Your task to perform on an android device: Search for "razer kraken" on target, select the first entry, and add it to the cart. Image 0: 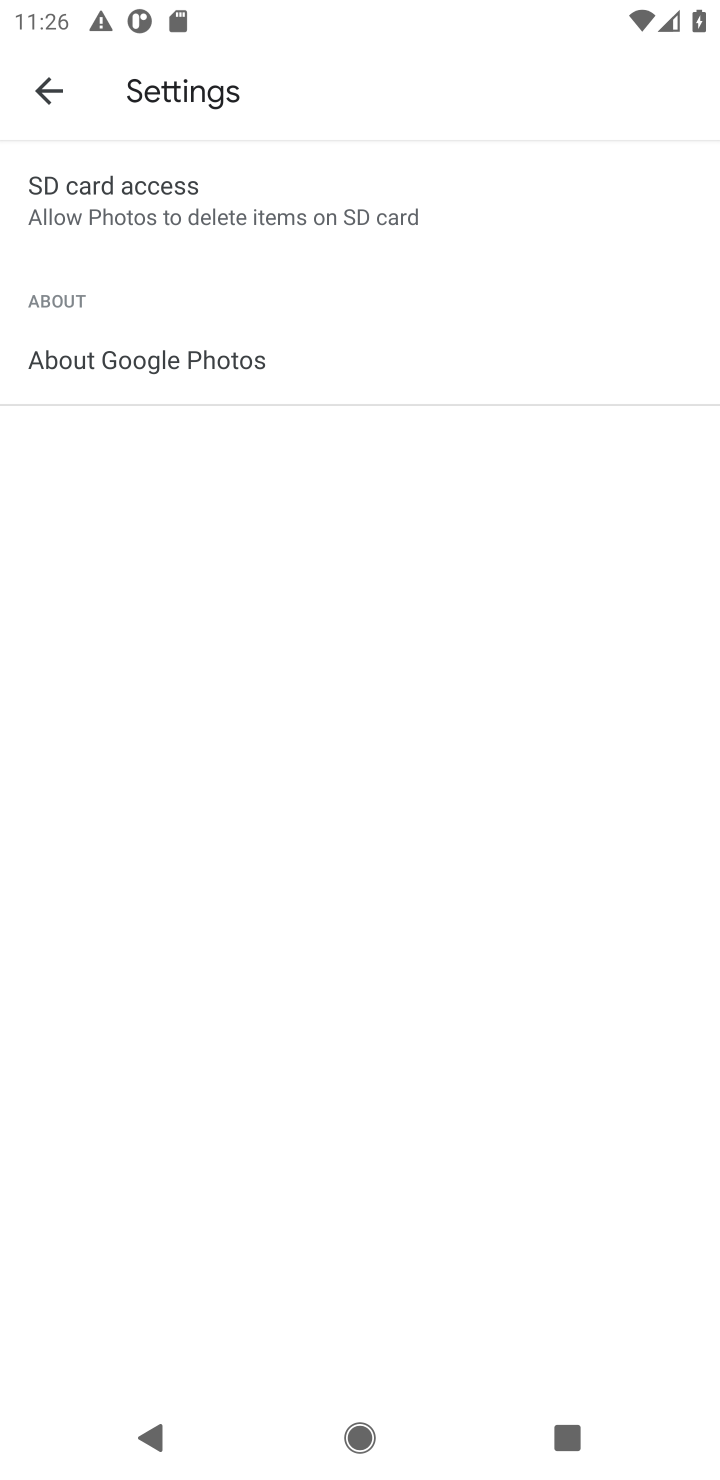
Step 0: press home button
Your task to perform on an android device: Search for "razer kraken" on target, select the first entry, and add it to the cart. Image 1: 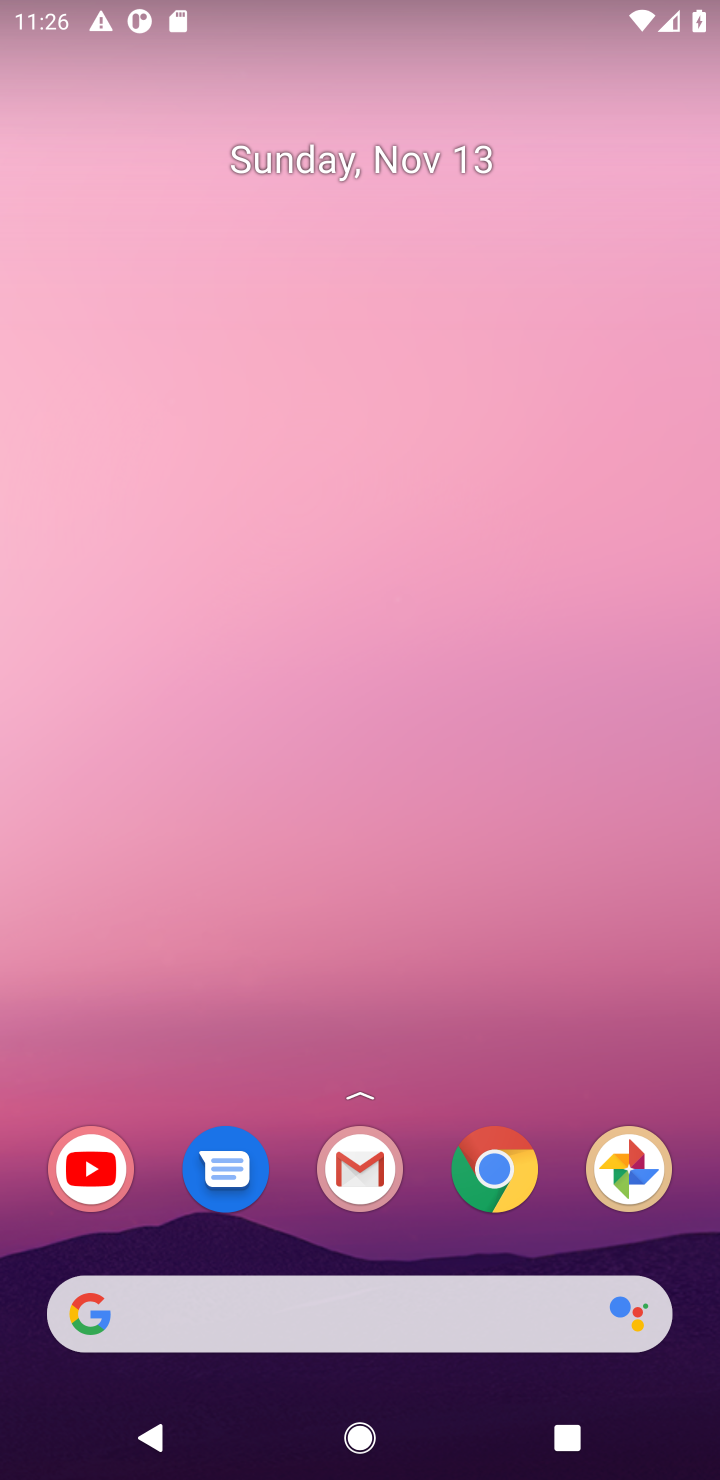
Step 1: drag from (351, 907) to (366, 100)
Your task to perform on an android device: Search for "razer kraken" on target, select the first entry, and add it to the cart. Image 2: 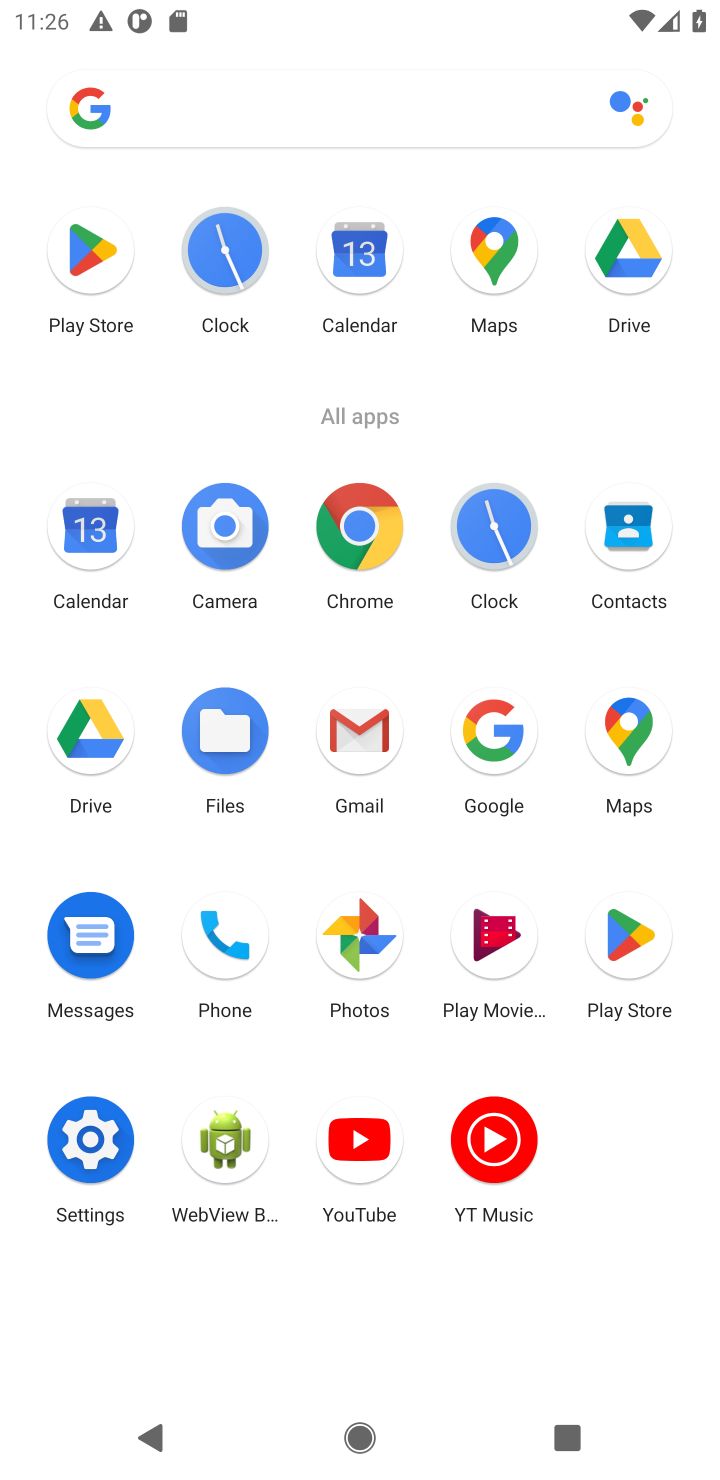
Step 2: click (358, 527)
Your task to perform on an android device: Search for "razer kraken" on target, select the first entry, and add it to the cart. Image 3: 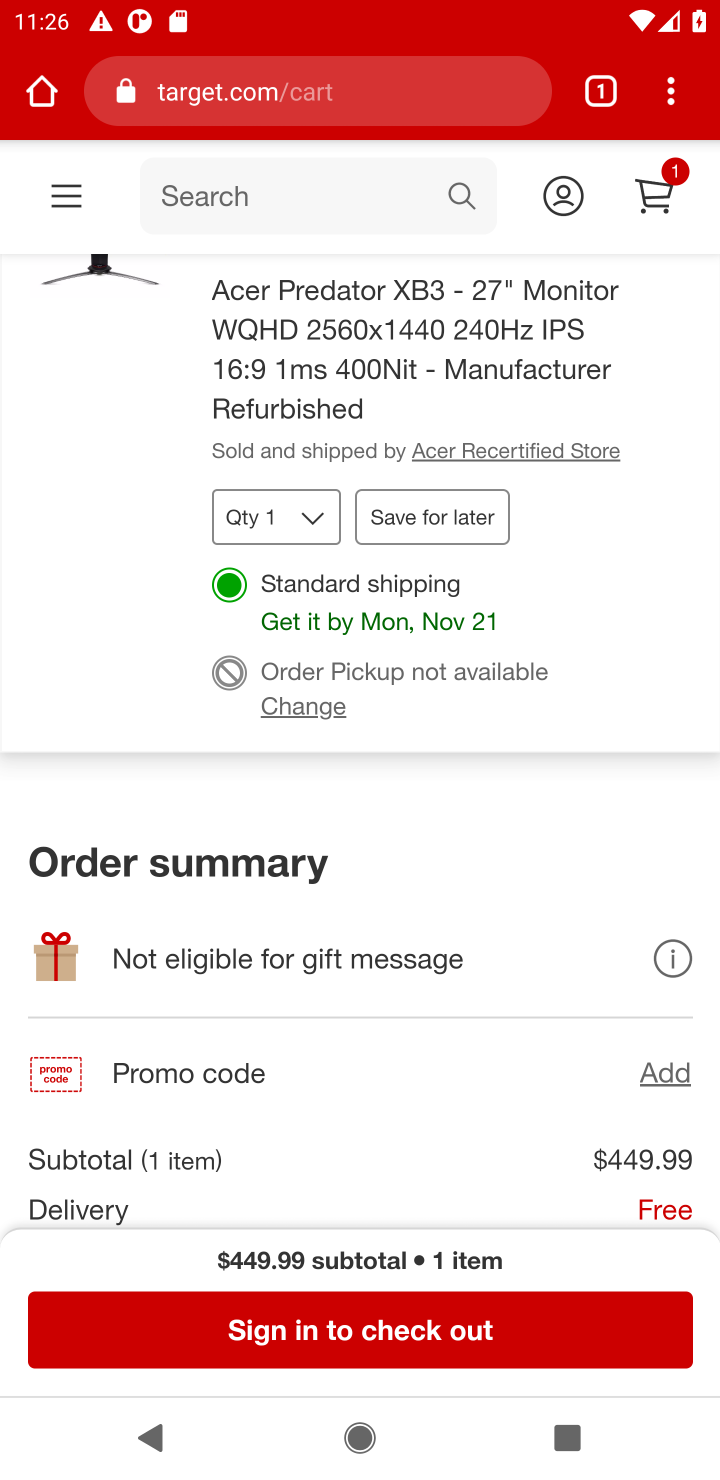
Step 3: click (372, 94)
Your task to perform on an android device: Search for "razer kraken" on target, select the first entry, and add it to the cart. Image 4: 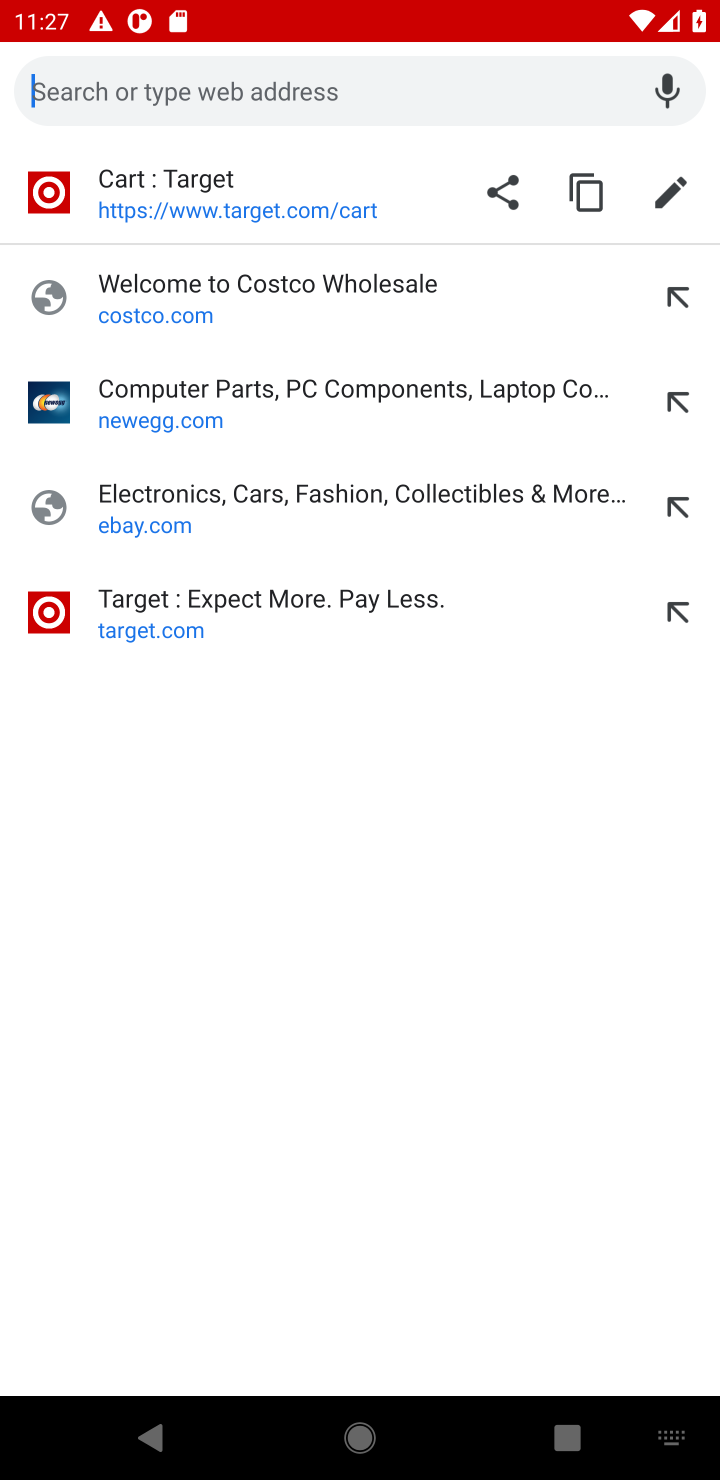
Step 4: type "target.com"
Your task to perform on an android device: Search for "razer kraken" on target, select the first entry, and add it to the cart. Image 5: 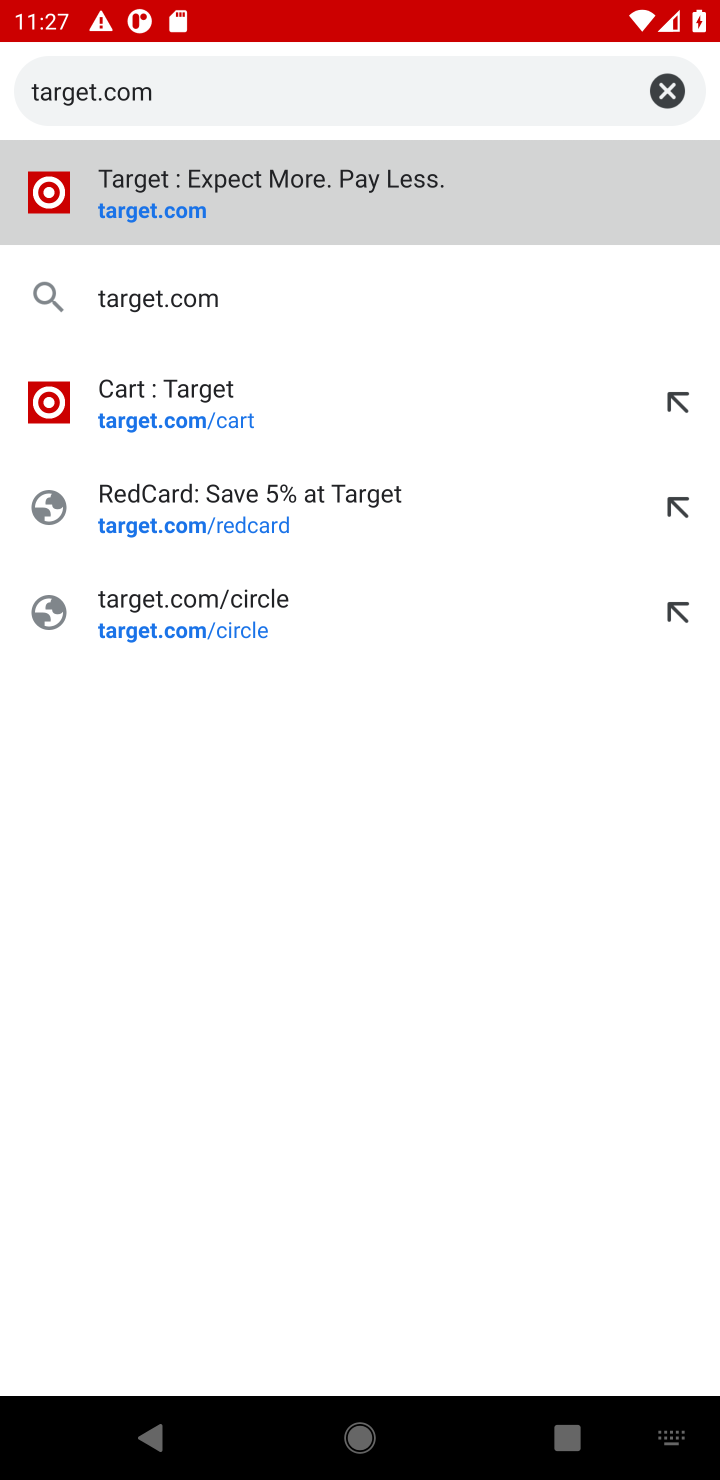
Step 5: press enter
Your task to perform on an android device: Search for "razer kraken" on target, select the first entry, and add it to the cart. Image 6: 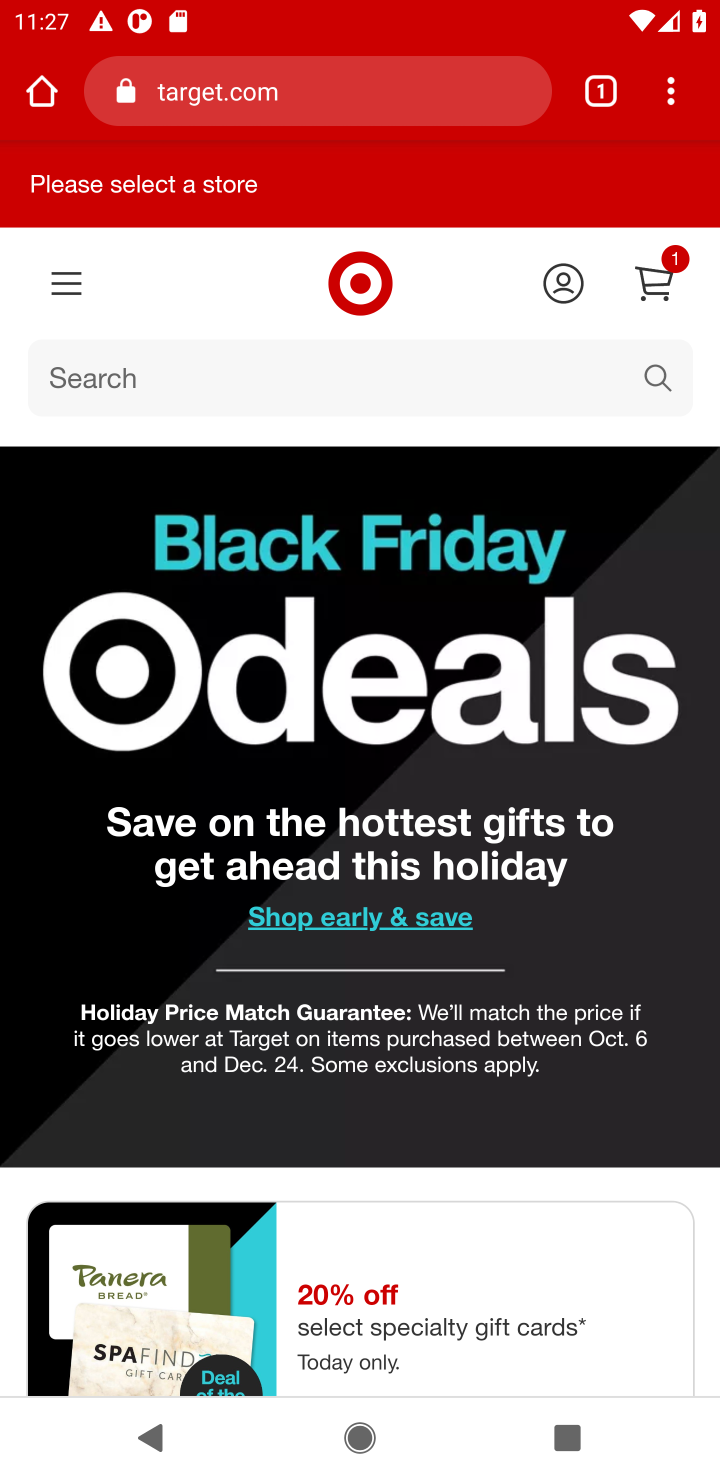
Step 6: click (233, 366)
Your task to perform on an android device: Search for "razer kraken" on target, select the first entry, and add it to the cart. Image 7: 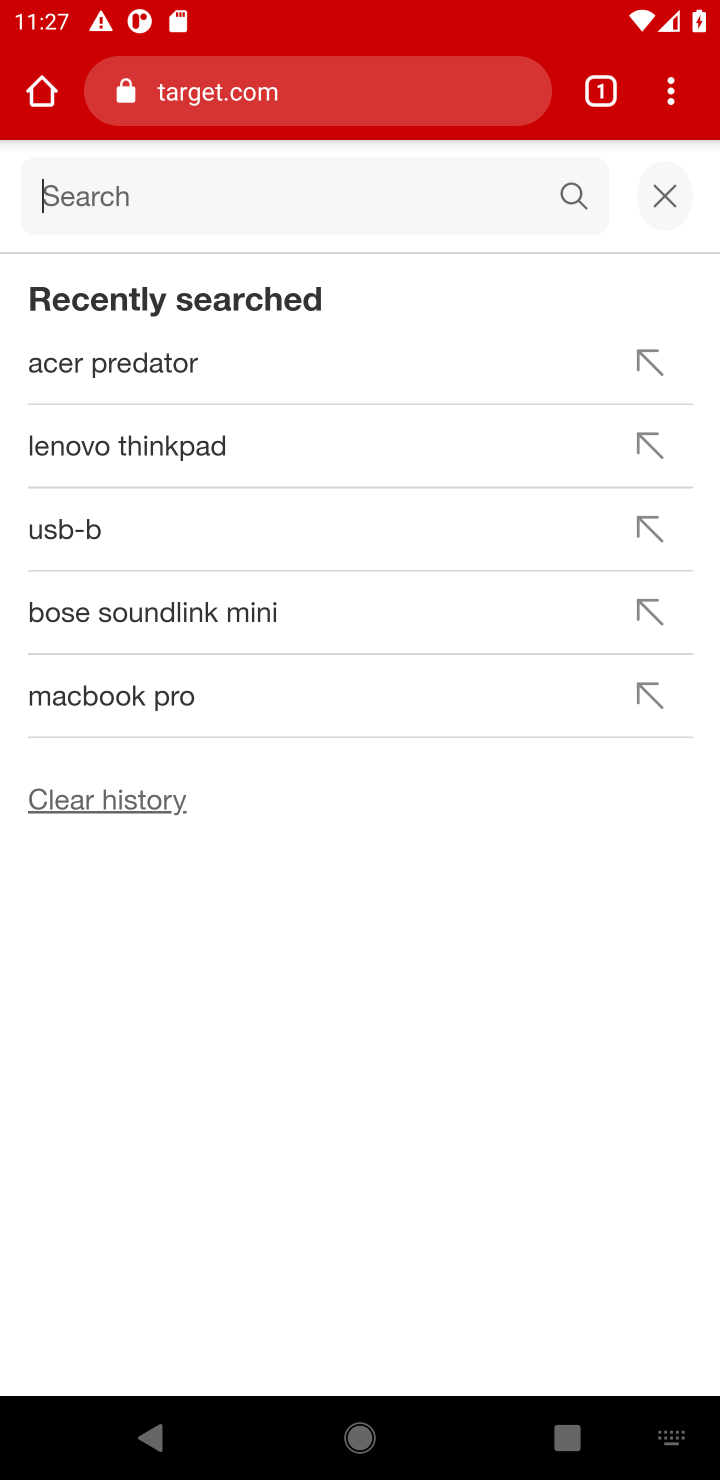
Step 7: type "razer kraken"
Your task to perform on an android device: Search for "razer kraken" on target, select the first entry, and add it to the cart. Image 8: 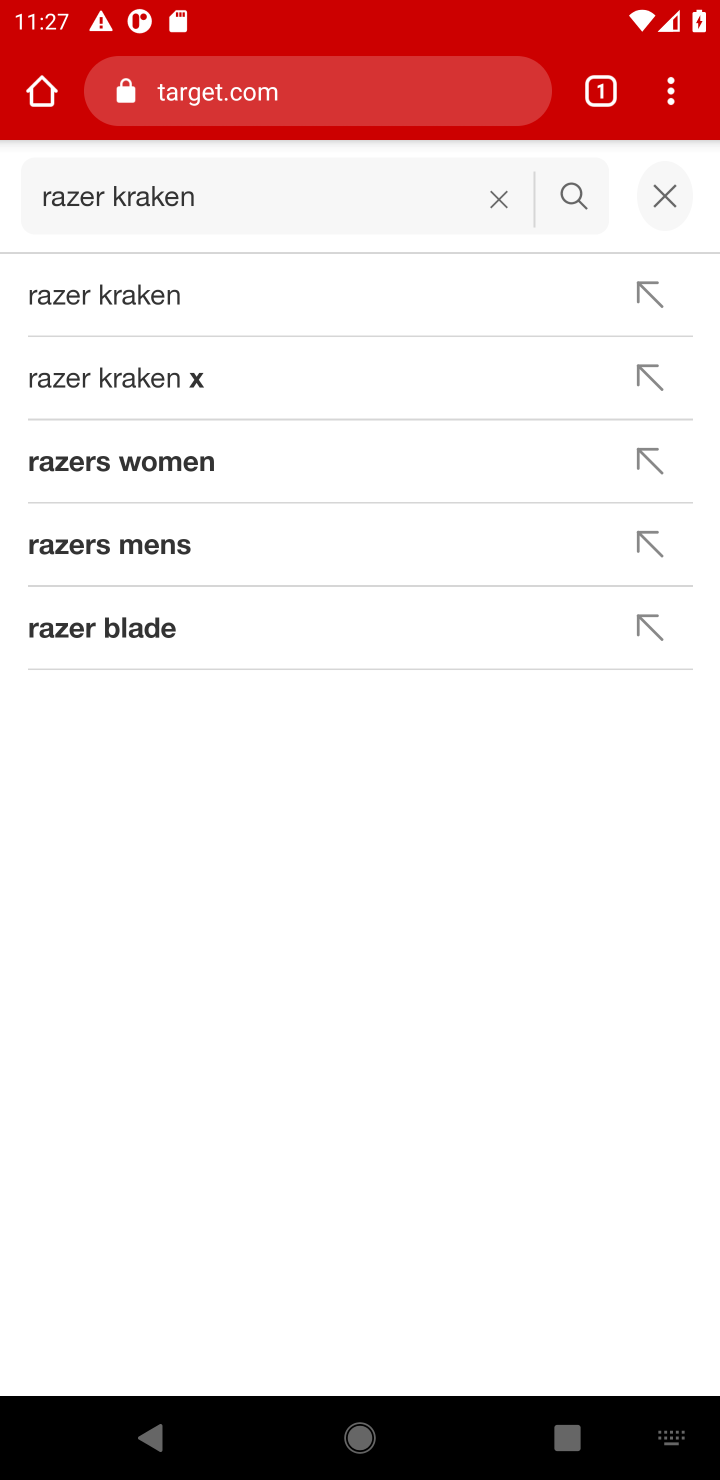
Step 8: press enter
Your task to perform on an android device: Search for "razer kraken" on target, select the first entry, and add it to the cart. Image 9: 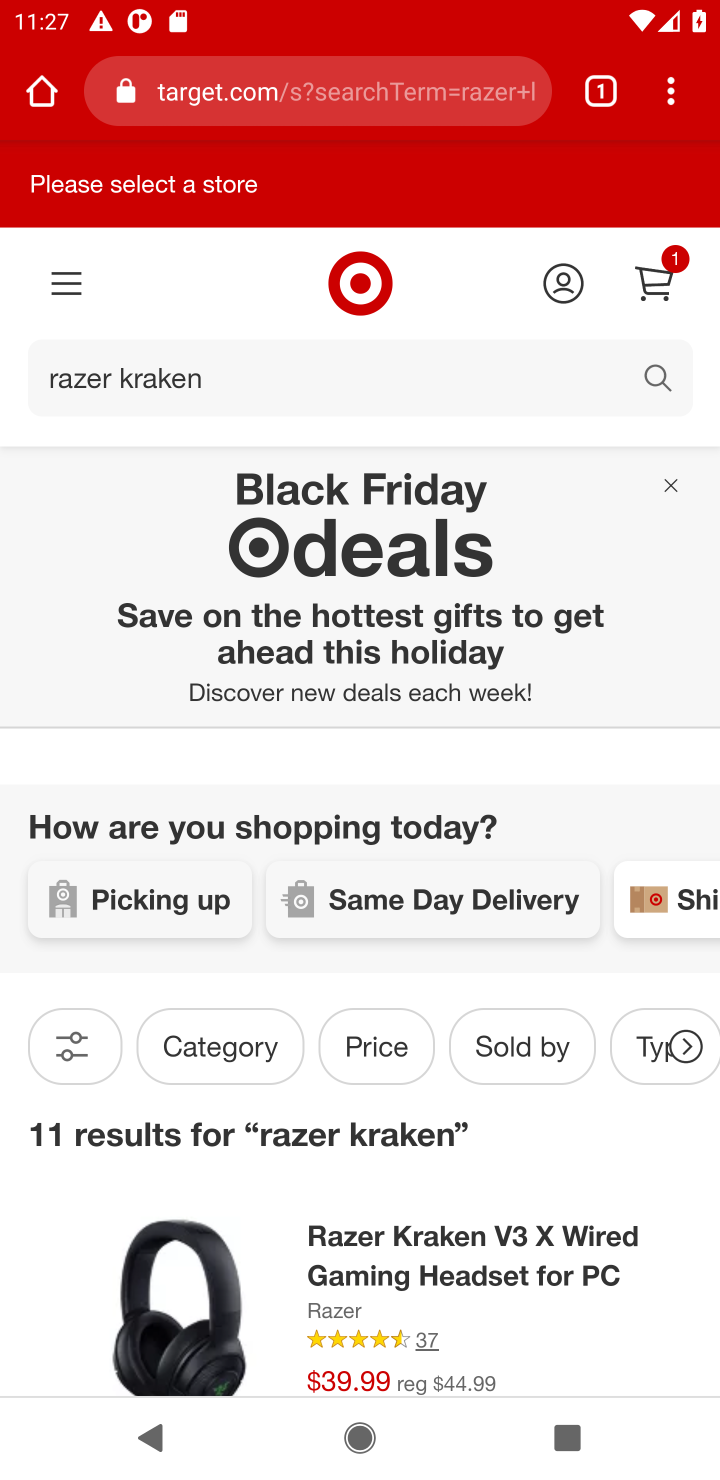
Step 9: drag from (536, 1341) to (467, 757)
Your task to perform on an android device: Search for "razer kraken" on target, select the first entry, and add it to the cart. Image 10: 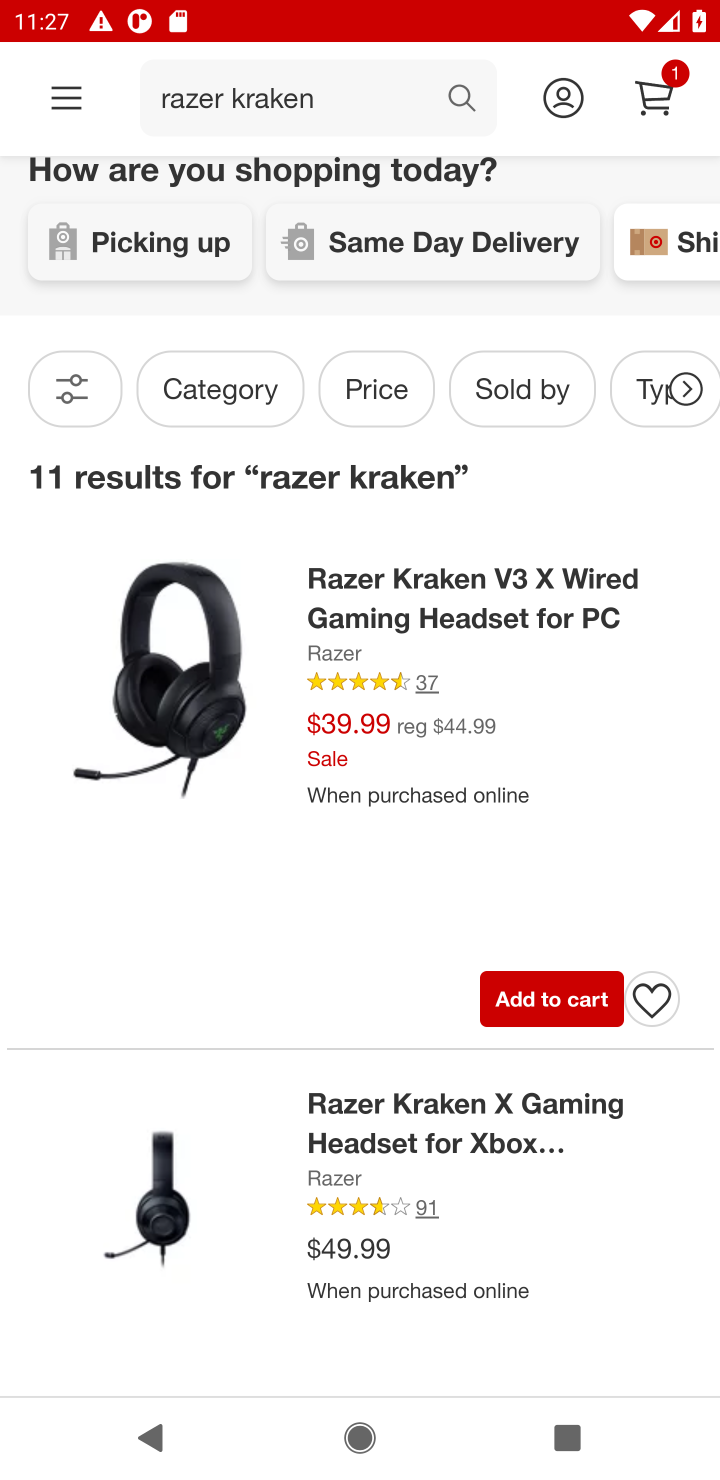
Step 10: click (526, 997)
Your task to perform on an android device: Search for "razer kraken" on target, select the first entry, and add it to the cart. Image 11: 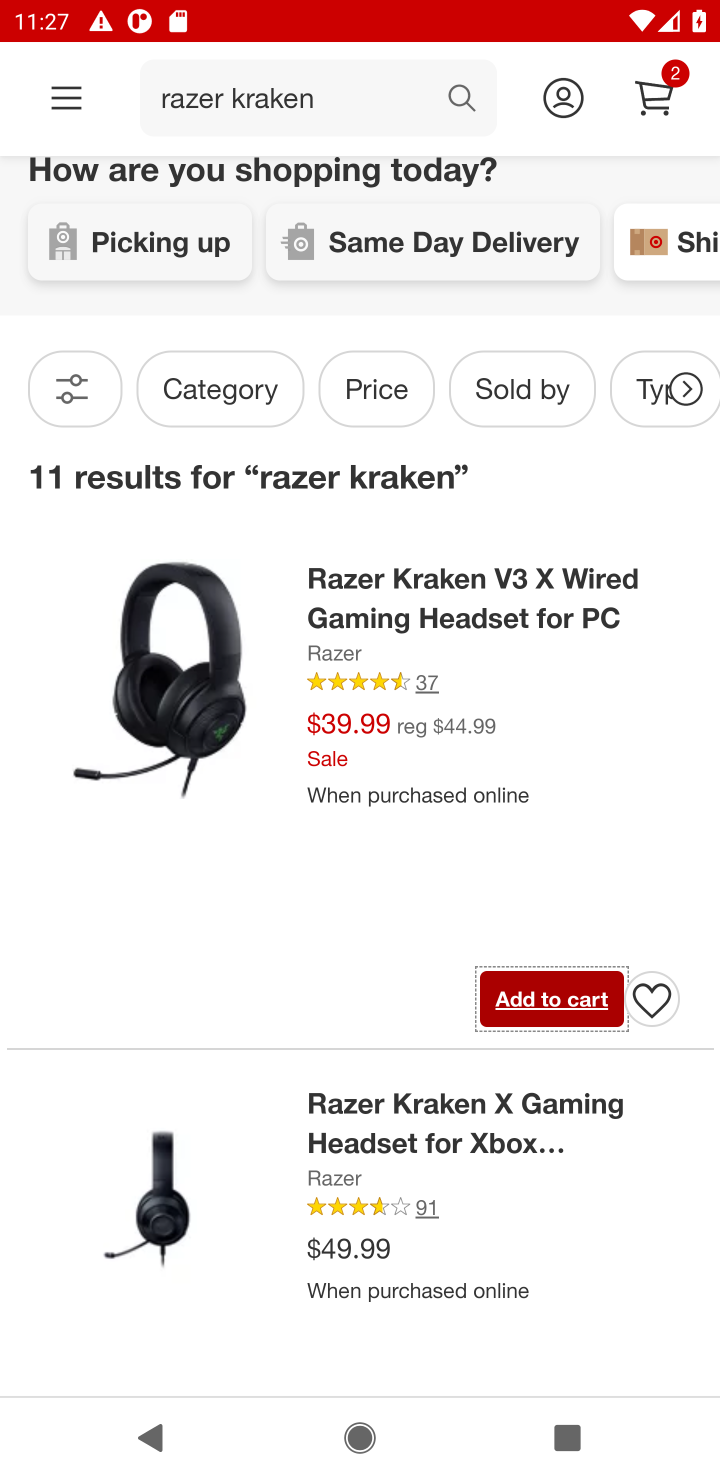
Step 11: click (532, 1008)
Your task to perform on an android device: Search for "razer kraken" on target, select the first entry, and add it to the cart. Image 12: 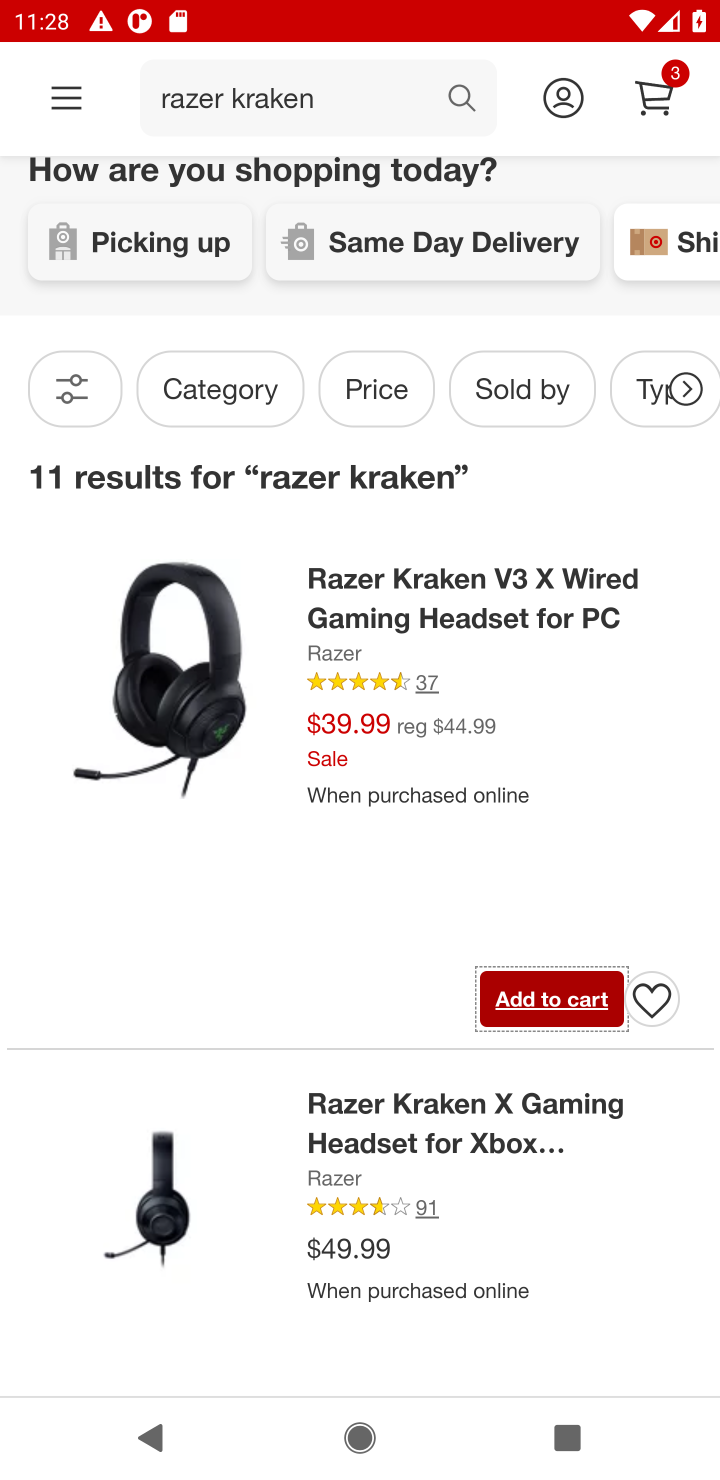
Step 12: task complete